Your task to perform on an android device: Open eBay Image 0: 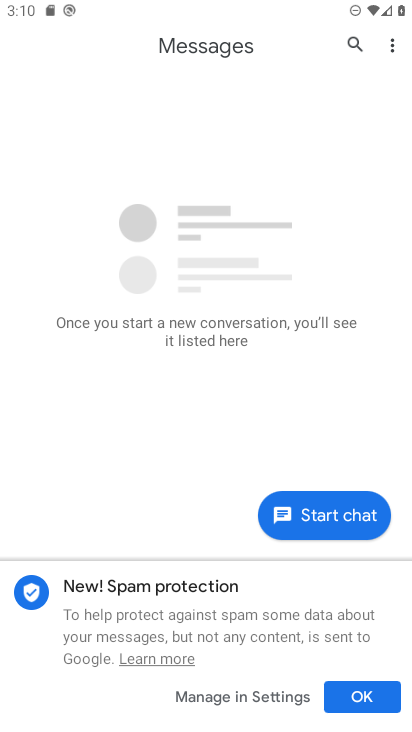
Step 0: press home button
Your task to perform on an android device: Open eBay Image 1: 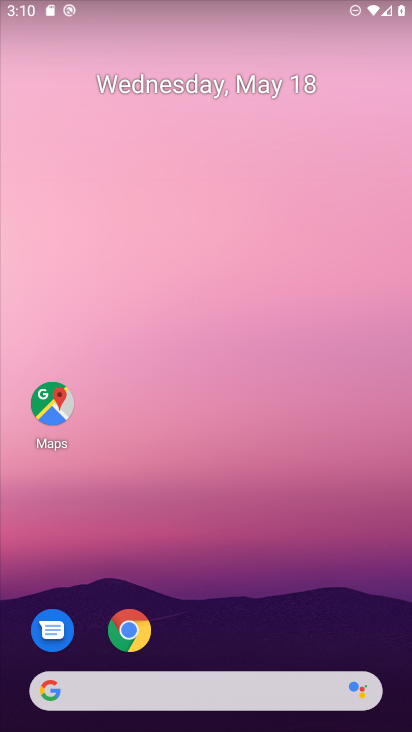
Step 1: click (126, 627)
Your task to perform on an android device: Open eBay Image 2: 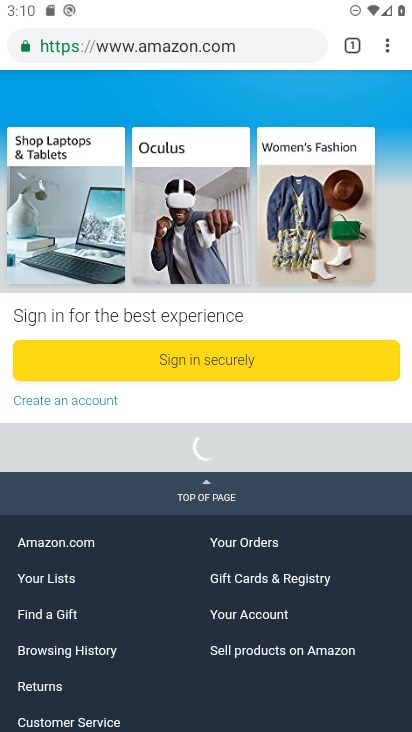
Step 2: drag from (237, 147) to (240, 701)
Your task to perform on an android device: Open eBay Image 3: 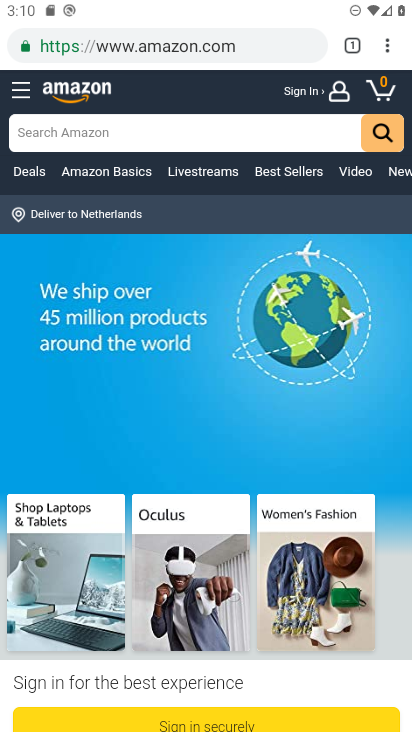
Step 3: click (350, 34)
Your task to perform on an android device: Open eBay Image 4: 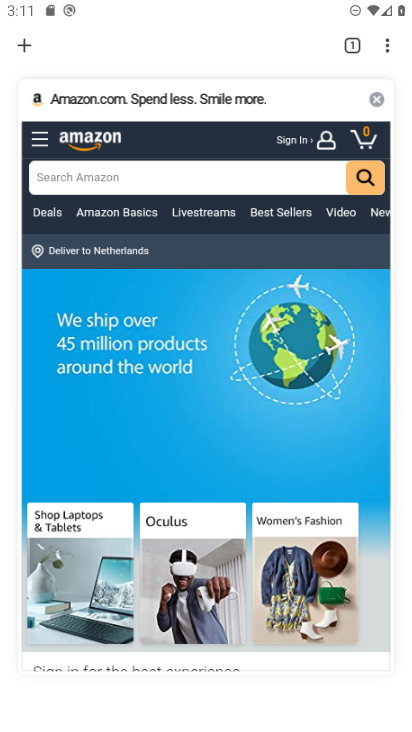
Step 4: click (23, 44)
Your task to perform on an android device: Open eBay Image 5: 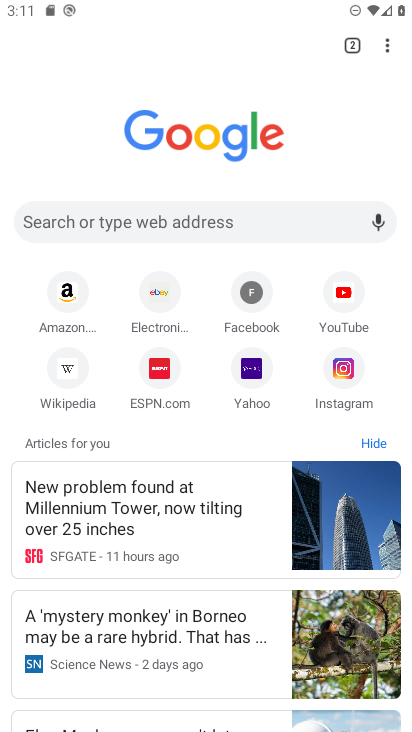
Step 5: click (164, 285)
Your task to perform on an android device: Open eBay Image 6: 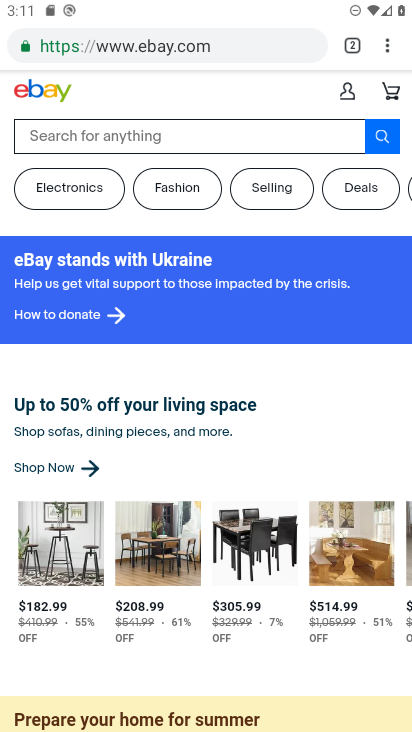
Step 6: task complete